Your task to perform on an android device: Go to settings Image 0: 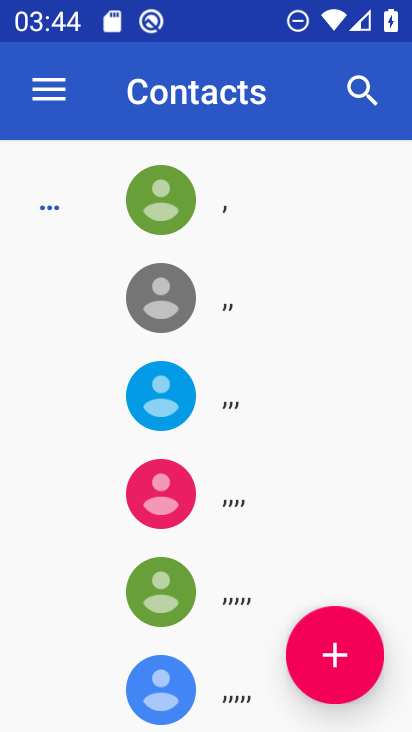
Step 0: press home button
Your task to perform on an android device: Go to settings Image 1: 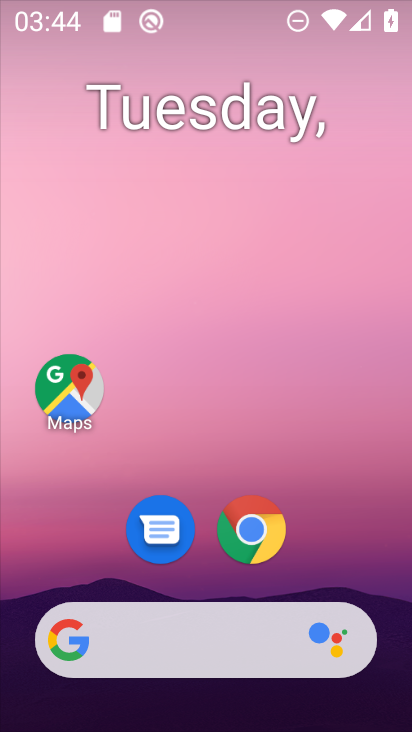
Step 1: drag from (169, 520) to (184, 189)
Your task to perform on an android device: Go to settings Image 2: 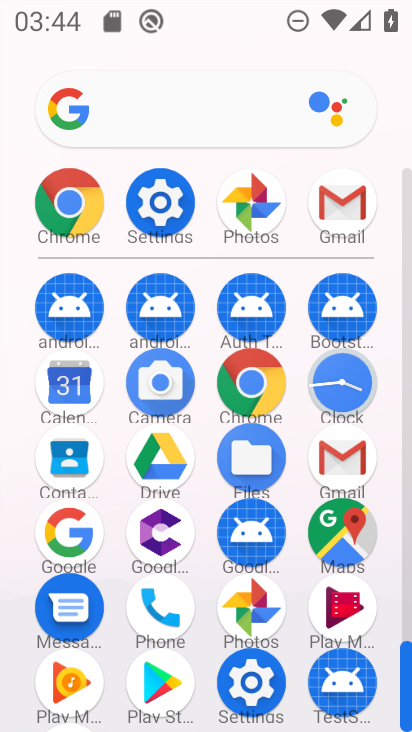
Step 2: click (132, 191)
Your task to perform on an android device: Go to settings Image 3: 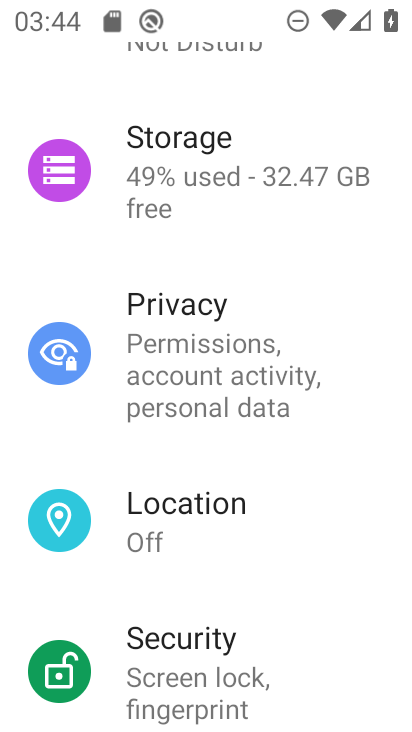
Step 3: task complete